Your task to perform on an android device: turn off wifi Image 0: 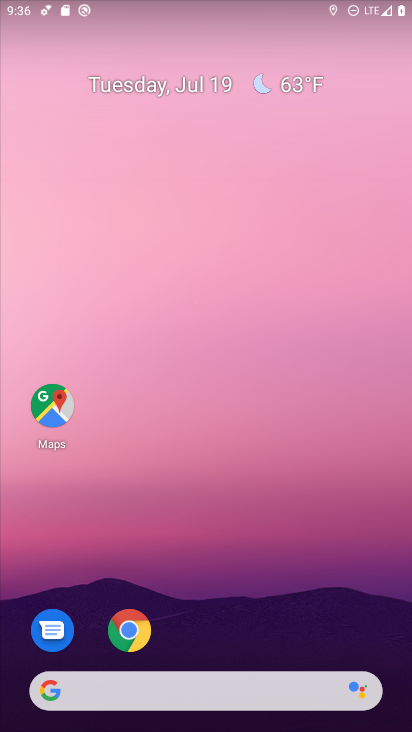
Step 0: drag from (206, 680) to (252, 64)
Your task to perform on an android device: turn off wifi Image 1: 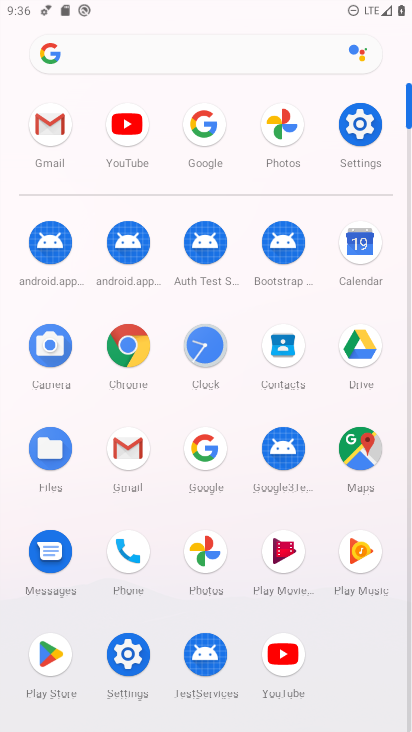
Step 1: click (361, 125)
Your task to perform on an android device: turn off wifi Image 2: 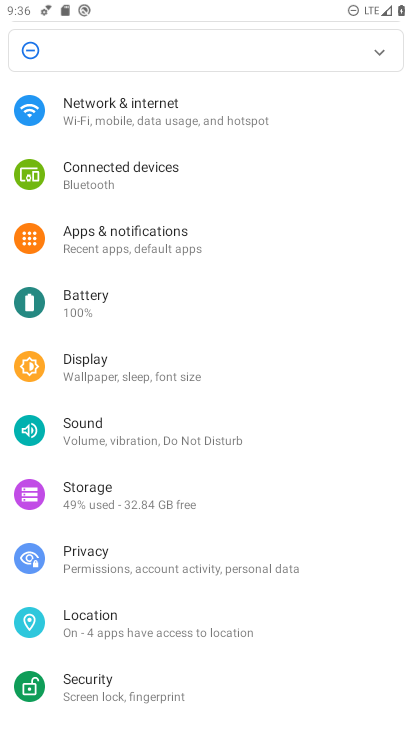
Step 2: click (178, 127)
Your task to perform on an android device: turn off wifi Image 3: 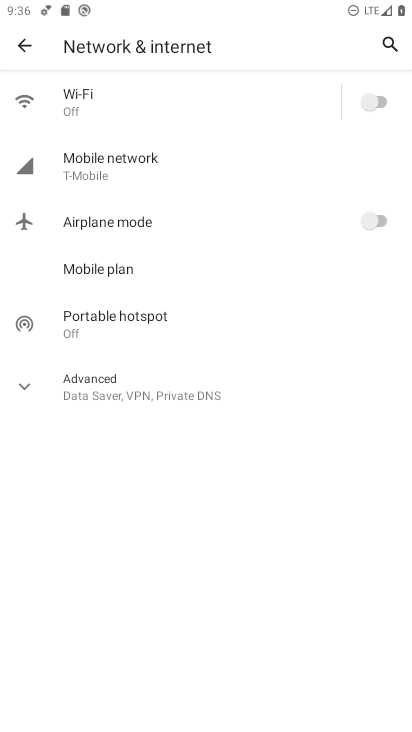
Step 3: task complete